Your task to perform on an android device: uninstall "LiveIn - Share Your Moment" Image 0: 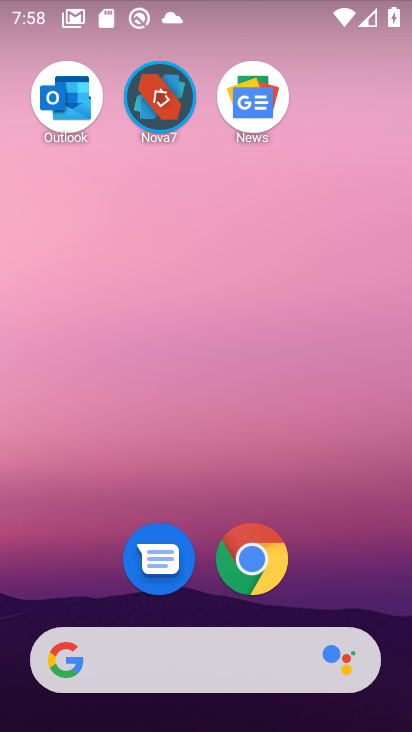
Step 0: drag from (200, 586) to (231, 195)
Your task to perform on an android device: uninstall "LiveIn - Share Your Moment" Image 1: 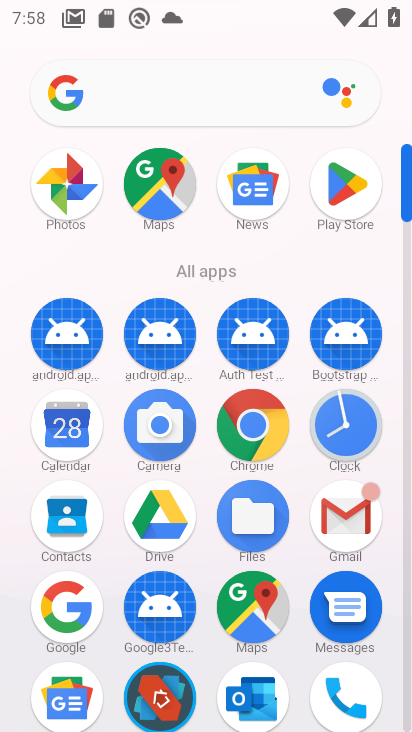
Step 1: drag from (212, 640) to (222, 274)
Your task to perform on an android device: uninstall "LiveIn - Share Your Moment" Image 2: 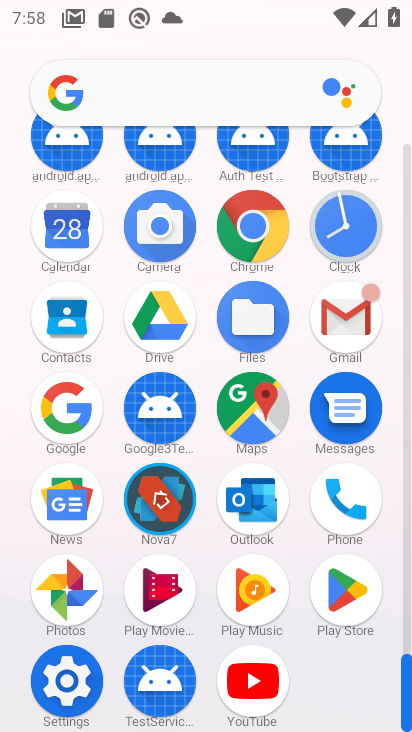
Step 2: click (326, 602)
Your task to perform on an android device: uninstall "LiveIn - Share Your Moment" Image 3: 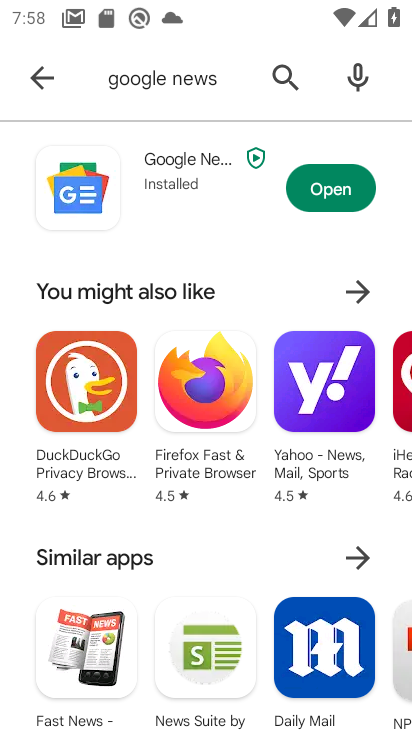
Step 3: click (155, 78)
Your task to perform on an android device: uninstall "LiveIn - Share Your Moment" Image 4: 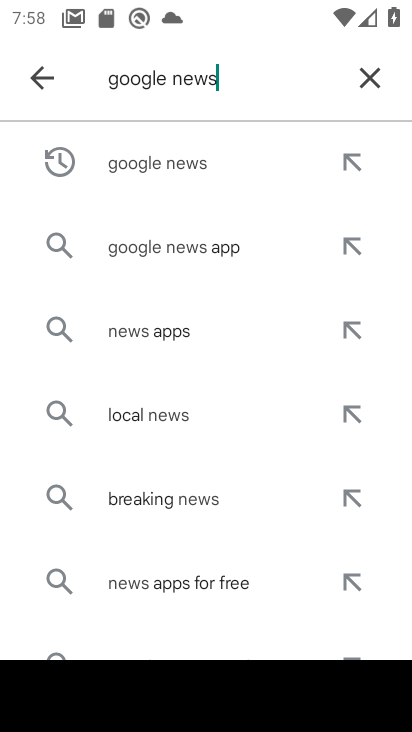
Step 4: click (371, 69)
Your task to perform on an android device: uninstall "LiveIn - Share Your Moment" Image 5: 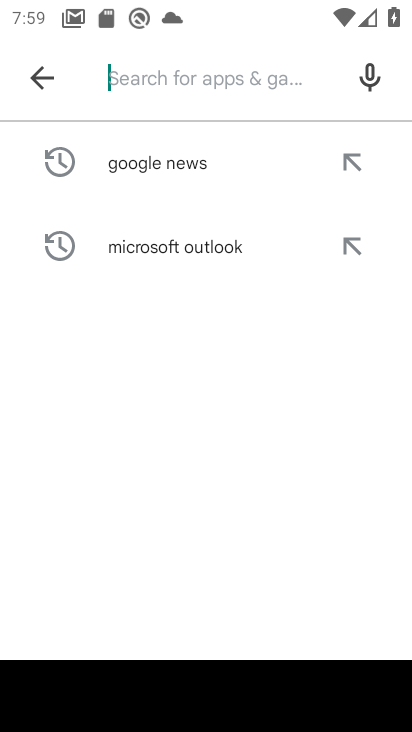
Step 5: type "LiveIn"
Your task to perform on an android device: uninstall "LiveIn - Share Your Moment" Image 6: 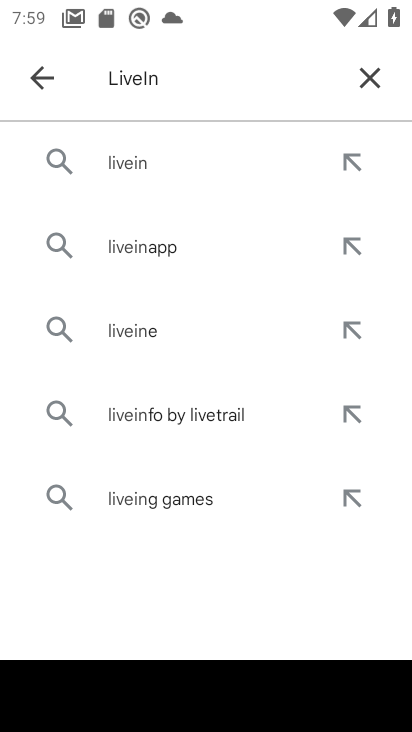
Step 6: click (156, 176)
Your task to perform on an android device: uninstall "LiveIn - Share Your Moment" Image 7: 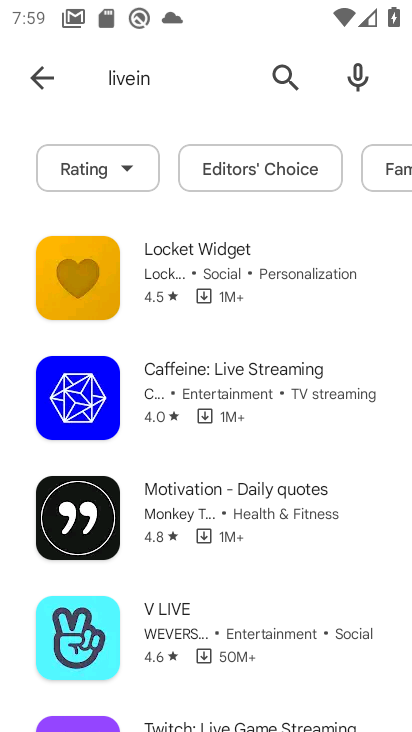
Step 7: task complete